Your task to perform on an android device: delete a single message in the gmail app Image 0: 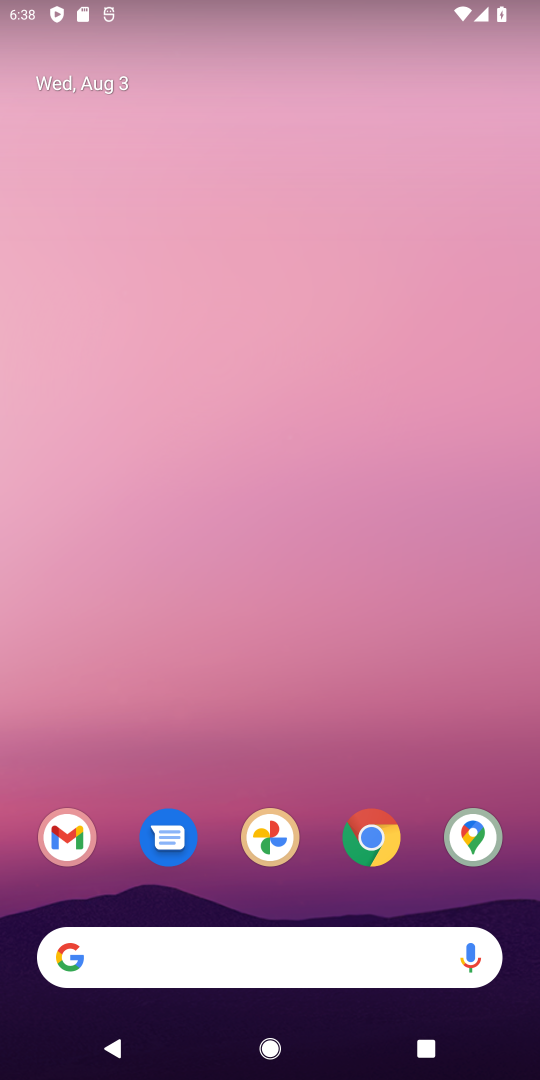
Step 0: press home button
Your task to perform on an android device: delete a single message in the gmail app Image 1: 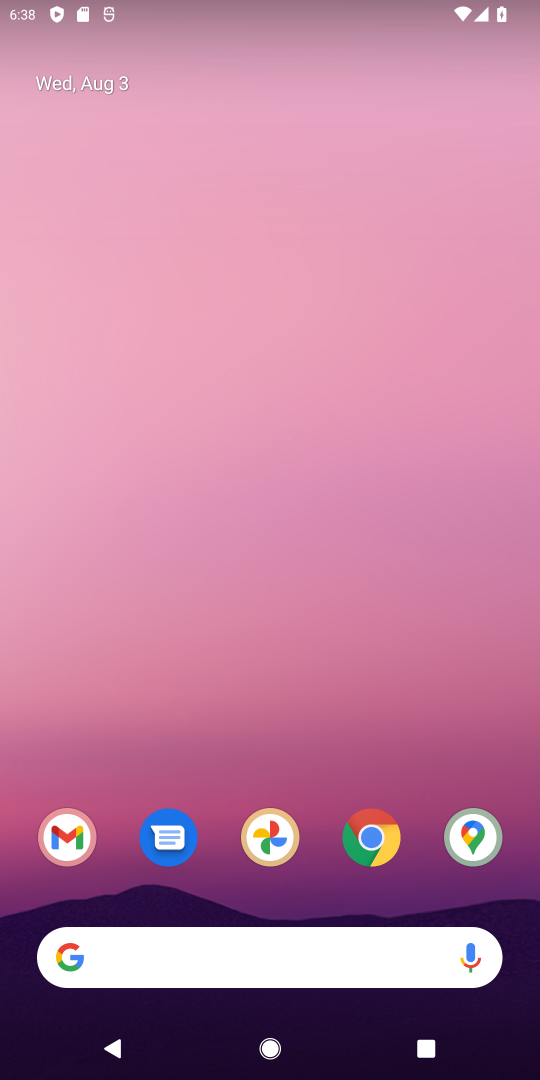
Step 1: drag from (298, 678) to (515, 0)
Your task to perform on an android device: delete a single message in the gmail app Image 2: 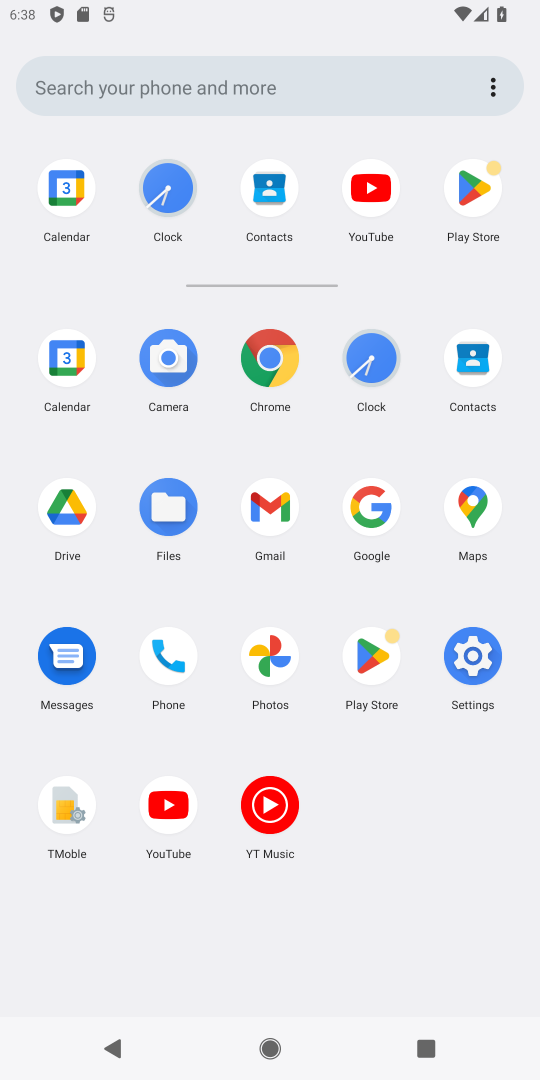
Step 2: click (273, 512)
Your task to perform on an android device: delete a single message in the gmail app Image 3: 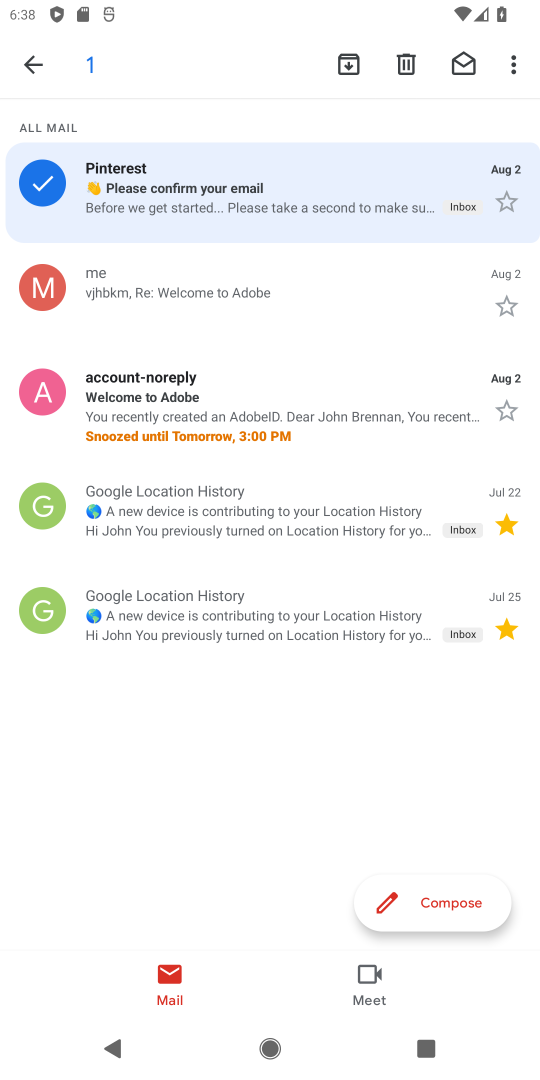
Step 3: click (225, 183)
Your task to perform on an android device: delete a single message in the gmail app Image 4: 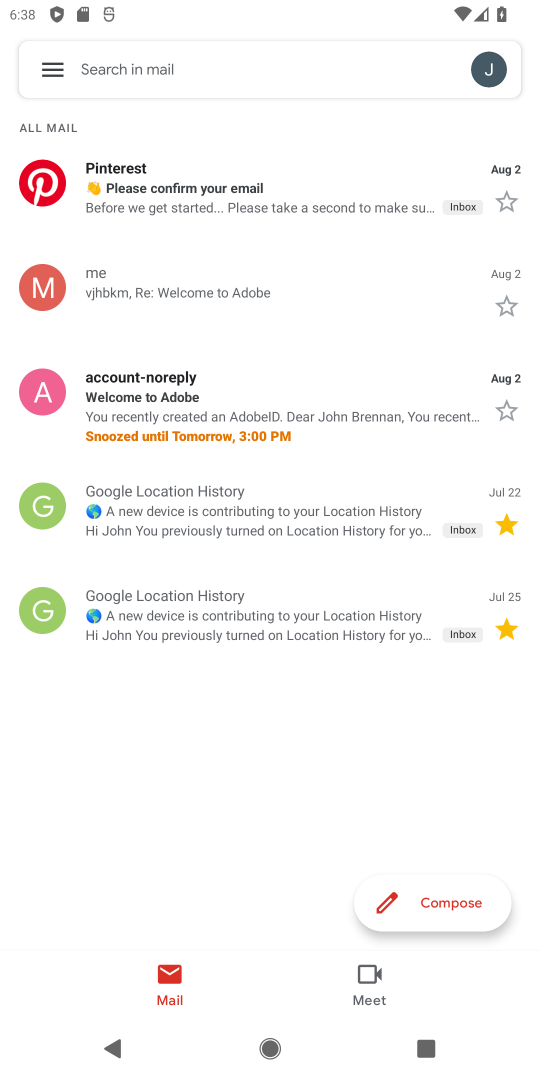
Step 4: click (176, 204)
Your task to perform on an android device: delete a single message in the gmail app Image 5: 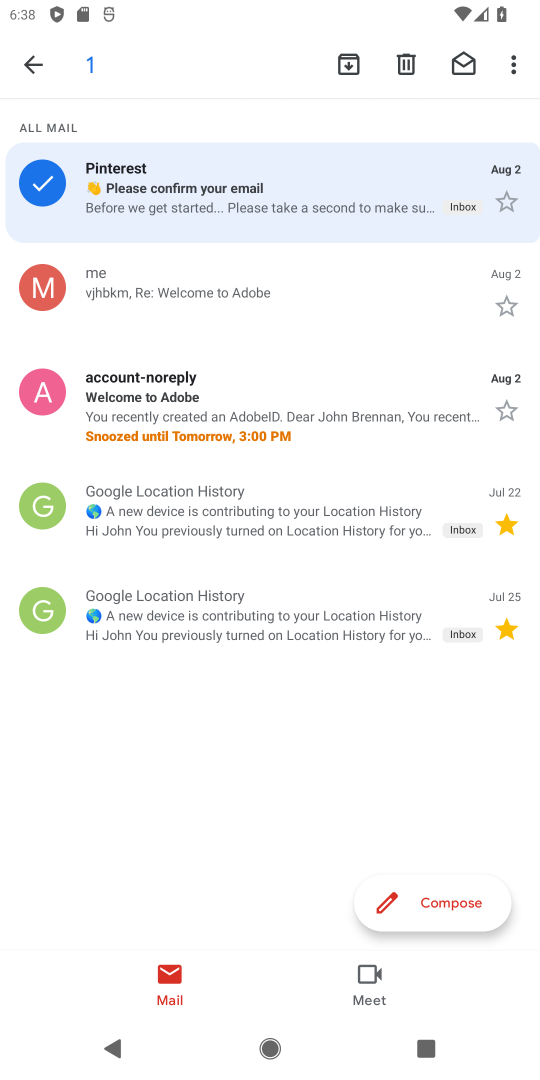
Step 5: click (410, 55)
Your task to perform on an android device: delete a single message in the gmail app Image 6: 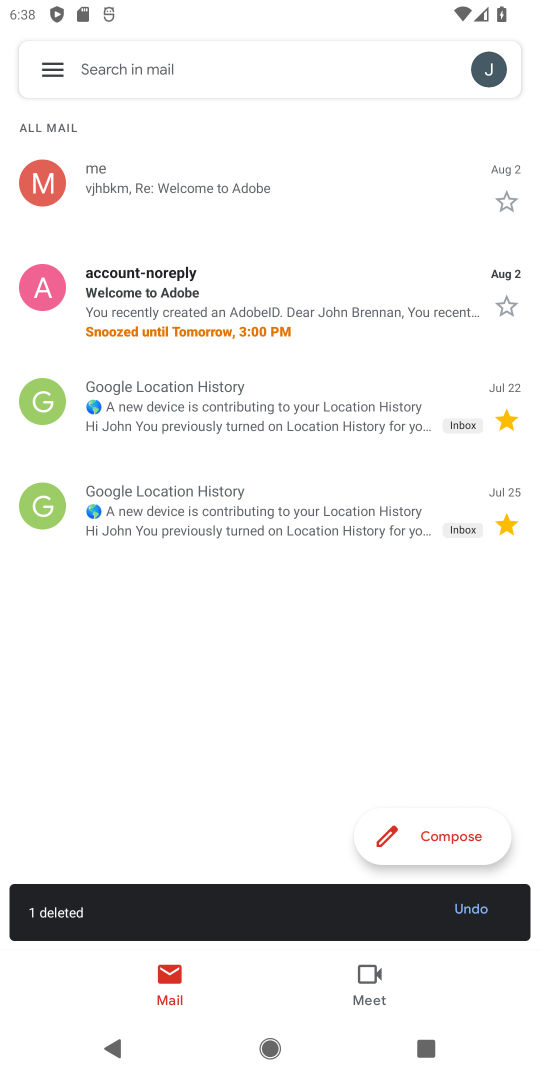
Step 6: task complete